Your task to perform on an android device: check the backup settings in the google photos Image 0: 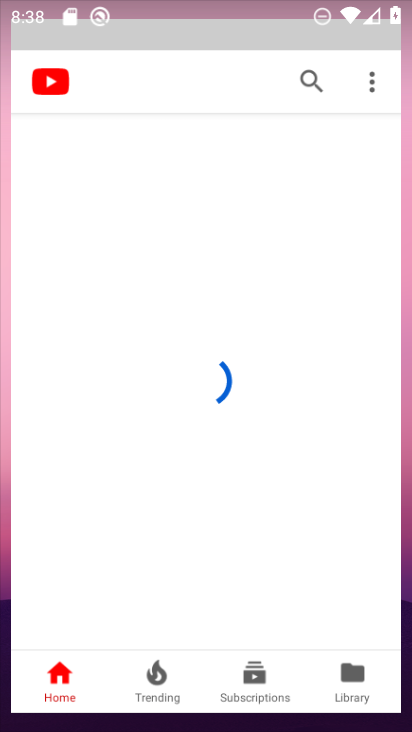
Step 0: drag from (302, 566) to (259, 94)
Your task to perform on an android device: check the backup settings in the google photos Image 1: 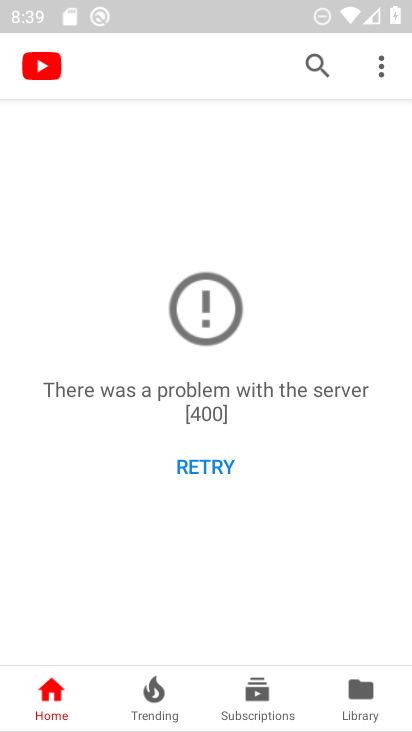
Step 1: press back button
Your task to perform on an android device: check the backup settings in the google photos Image 2: 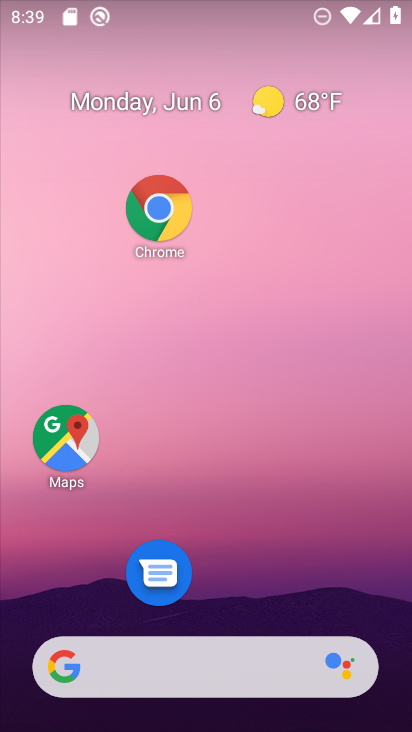
Step 2: drag from (227, 679) to (71, 10)
Your task to perform on an android device: check the backup settings in the google photos Image 3: 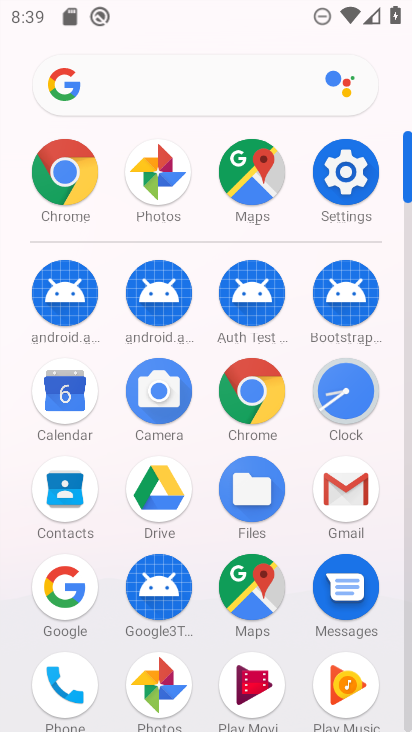
Step 3: click (156, 687)
Your task to perform on an android device: check the backup settings in the google photos Image 4: 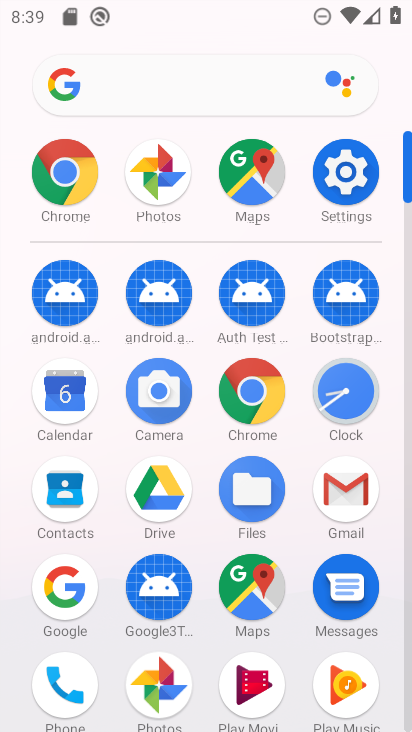
Step 4: click (156, 687)
Your task to perform on an android device: check the backup settings in the google photos Image 5: 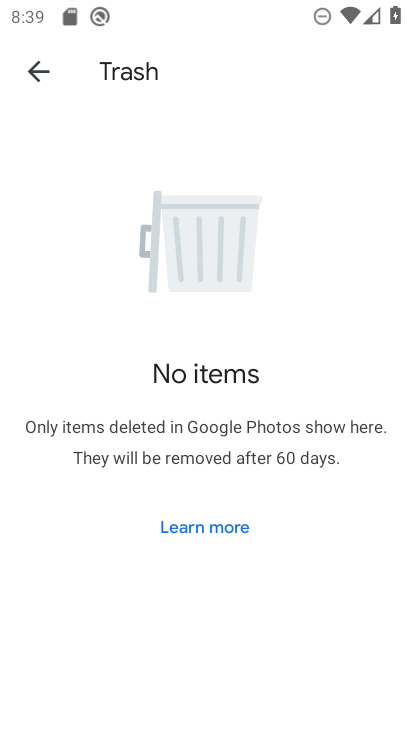
Step 5: click (156, 687)
Your task to perform on an android device: check the backup settings in the google photos Image 6: 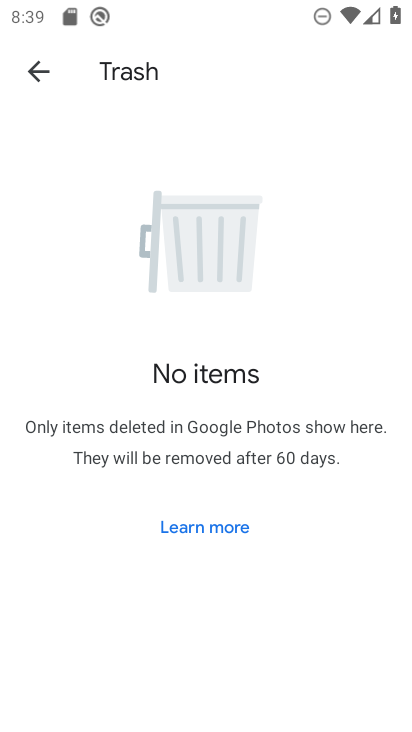
Step 6: click (33, 70)
Your task to perform on an android device: check the backup settings in the google photos Image 7: 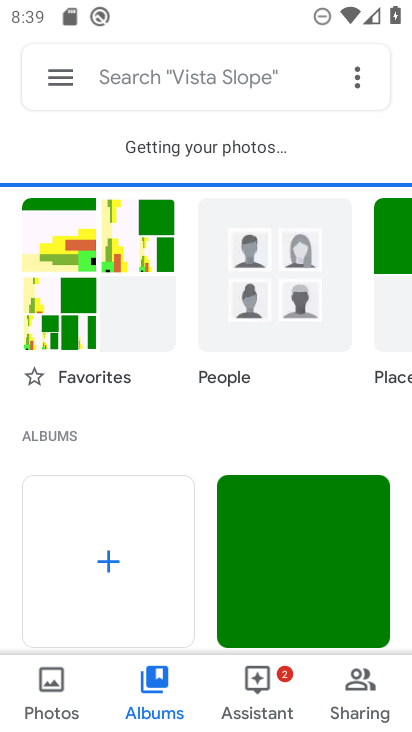
Step 7: click (68, 75)
Your task to perform on an android device: check the backup settings in the google photos Image 8: 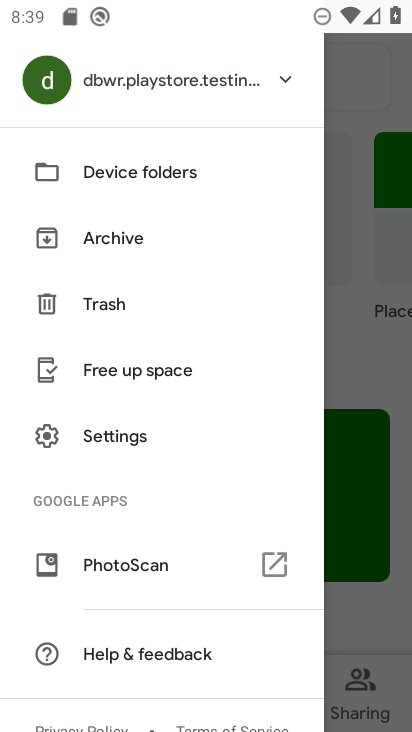
Step 8: click (101, 428)
Your task to perform on an android device: check the backup settings in the google photos Image 9: 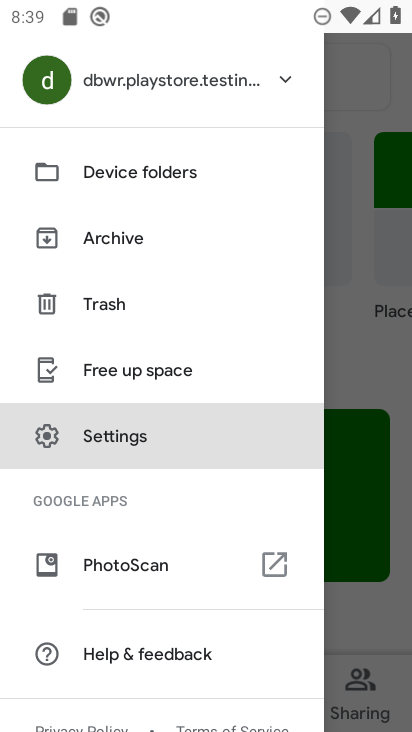
Step 9: click (100, 428)
Your task to perform on an android device: check the backup settings in the google photos Image 10: 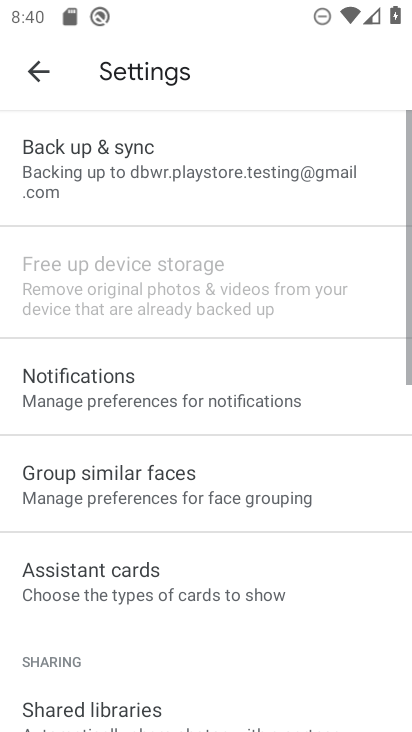
Step 10: click (66, 153)
Your task to perform on an android device: check the backup settings in the google photos Image 11: 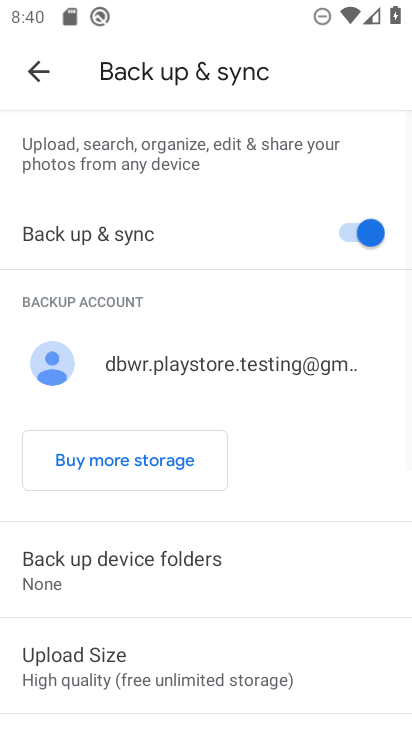
Step 11: click (75, 668)
Your task to perform on an android device: check the backup settings in the google photos Image 12: 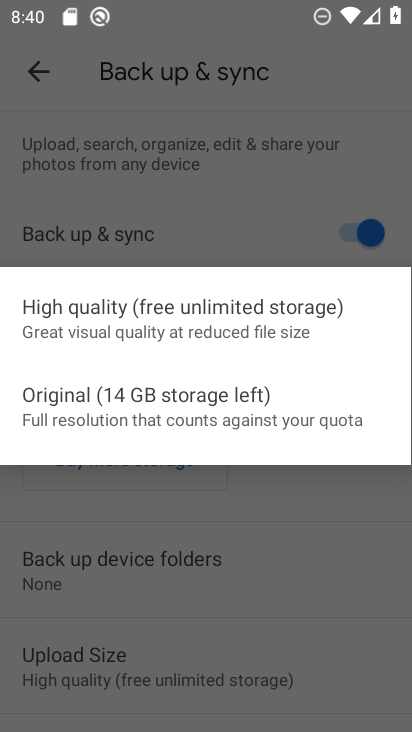
Step 12: click (66, 404)
Your task to perform on an android device: check the backup settings in the google photos Image 13: 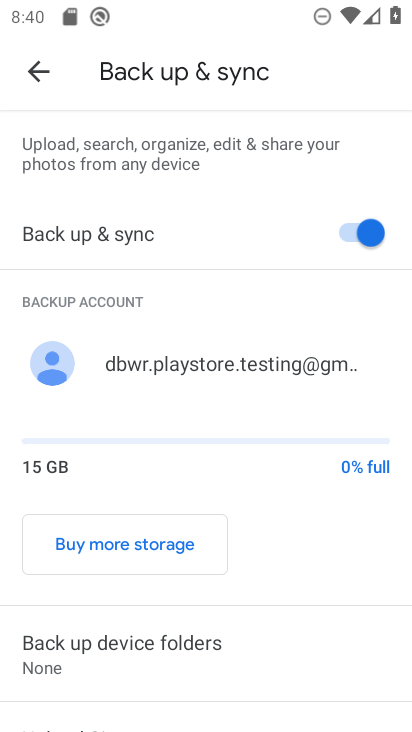
Step 13: task complete